Your task to perform on an android device: open app "Venmo" (install if not already installed) and go to login screen Image 0: 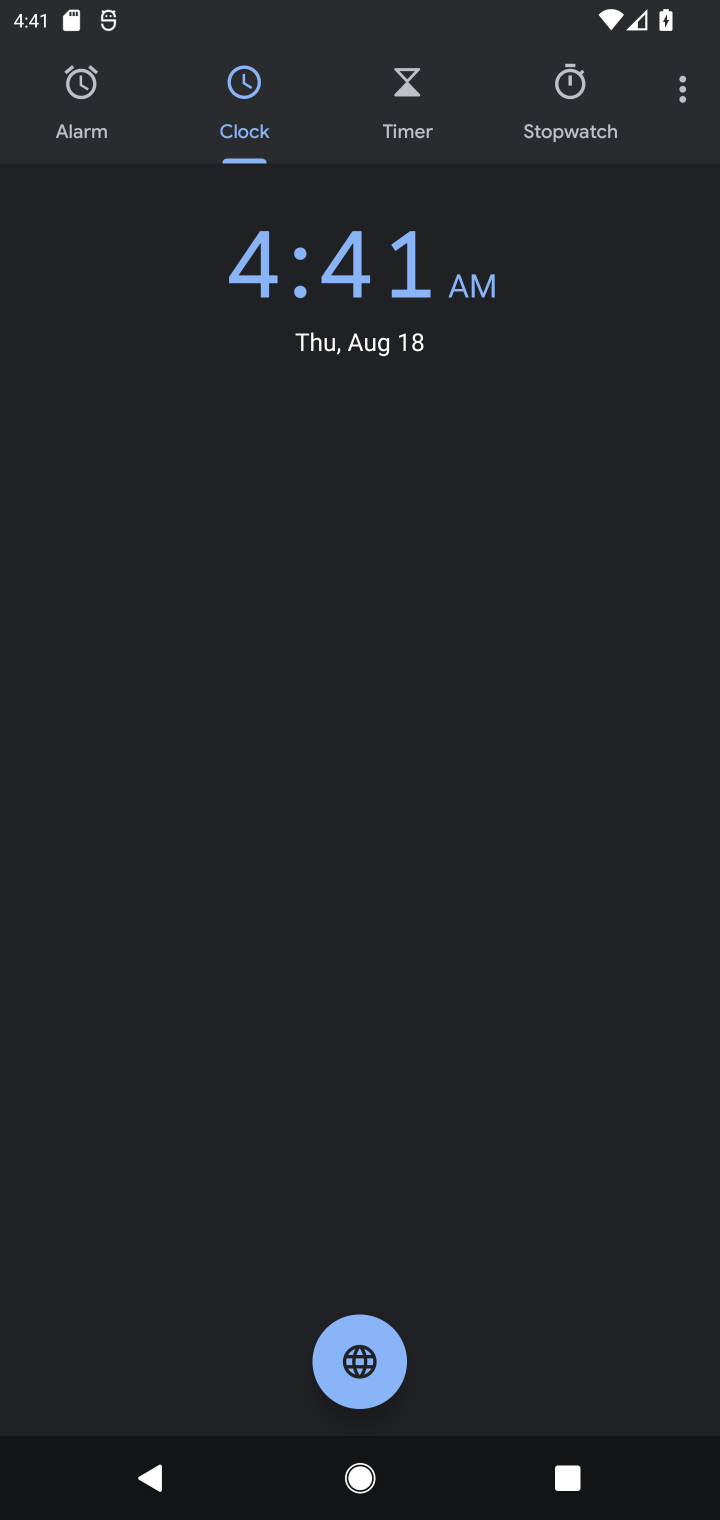
Step 0: press home button
Your task to perform on an android device: open app "Venmo" (install if not already installed) and go to login screen Image 1: 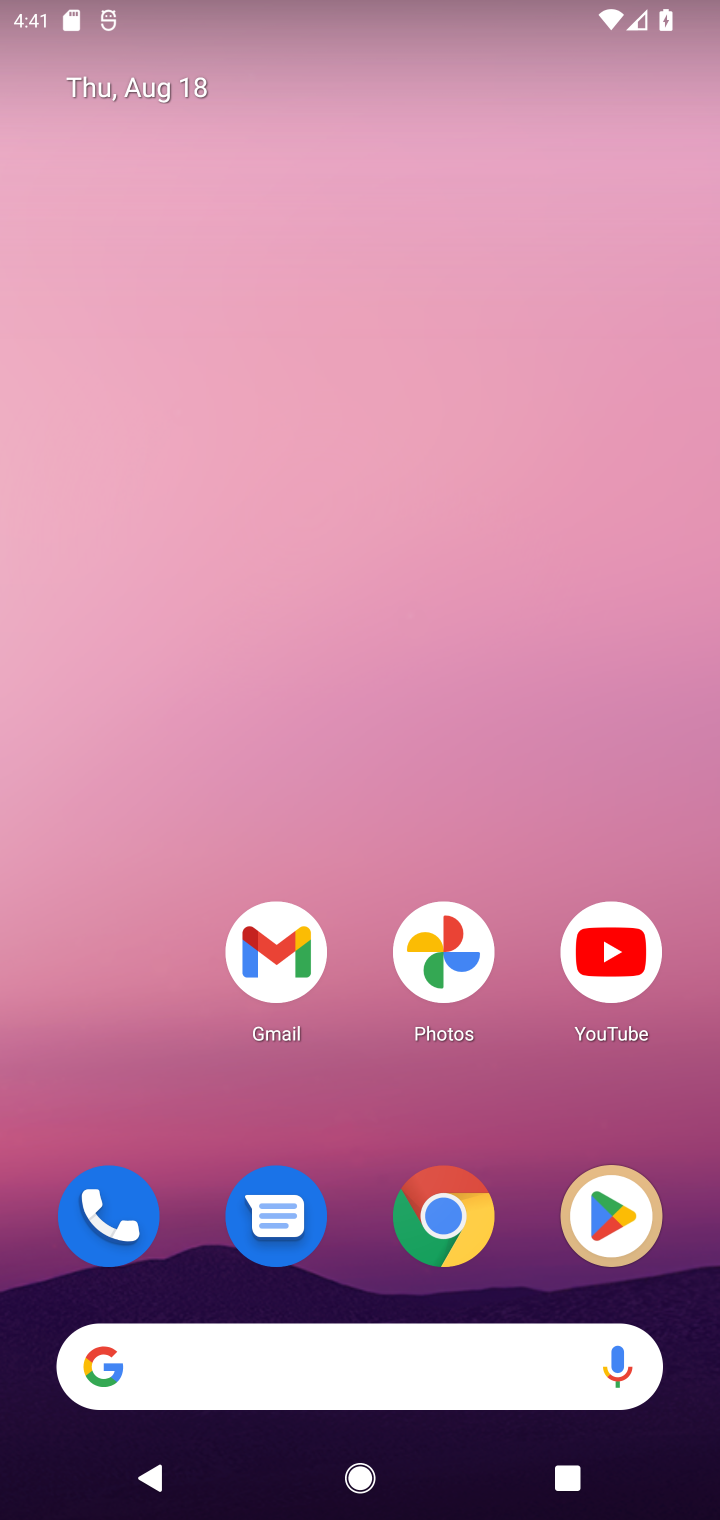
Step 1: click (584, 1194)
Your task to perform on an android device: open app "Venmo" (install if not already installed) and go to login screen Image 2: 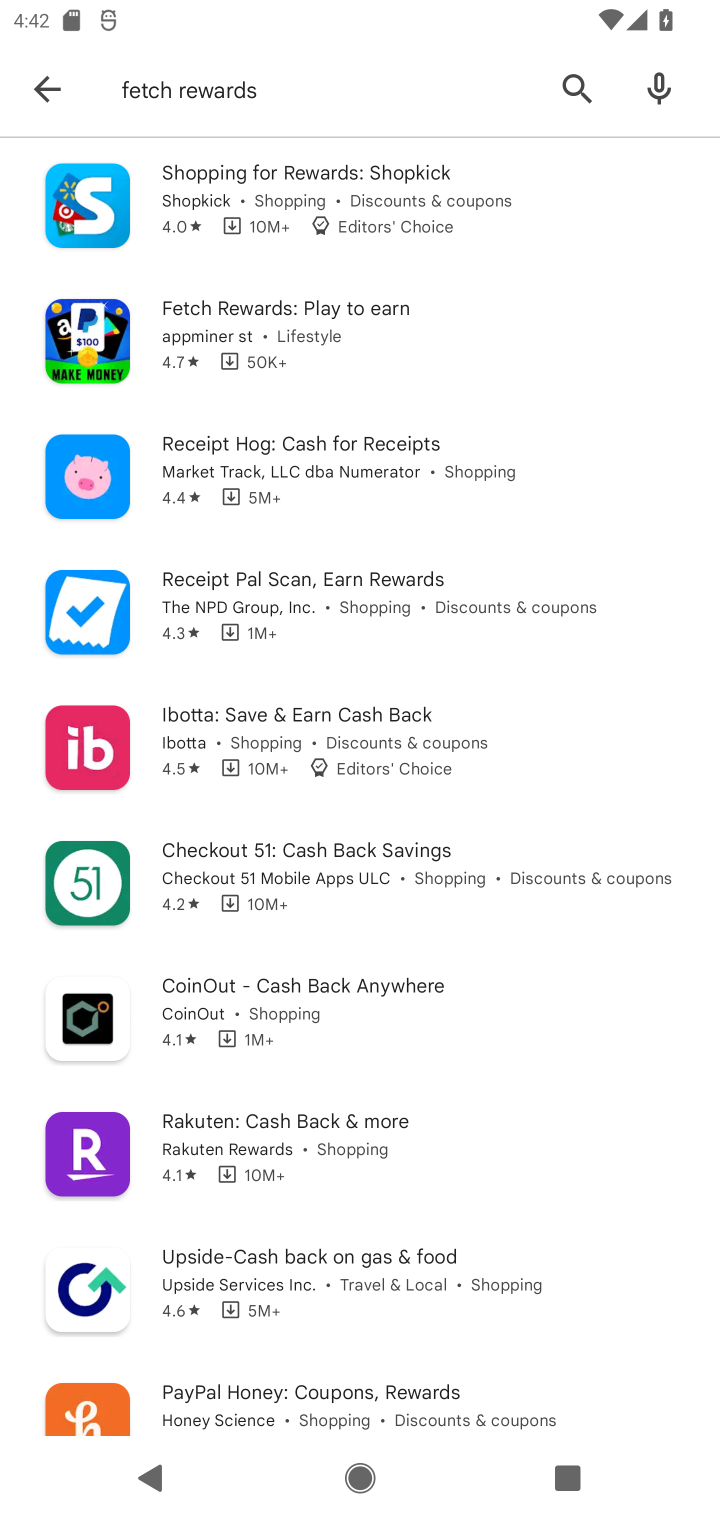
Step 2: click (559, 91)
Your task to perform on an android device: open app "Venmo" (install if not already installed) and go to login screen Image 3: 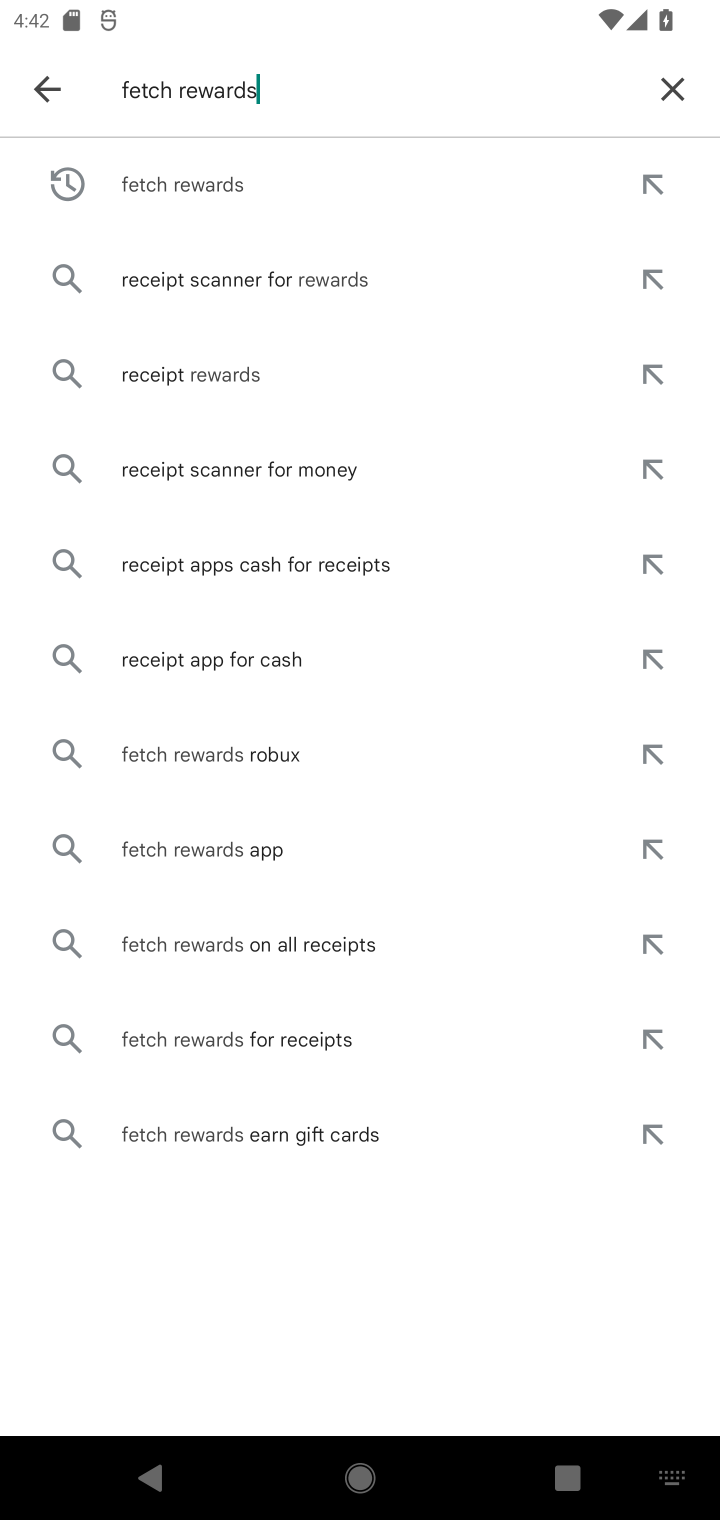
Step 3: click (674, 84)
Your task to perform on an android device: open app "Venmo" (install if not already installed) and go to login screen Image 4: 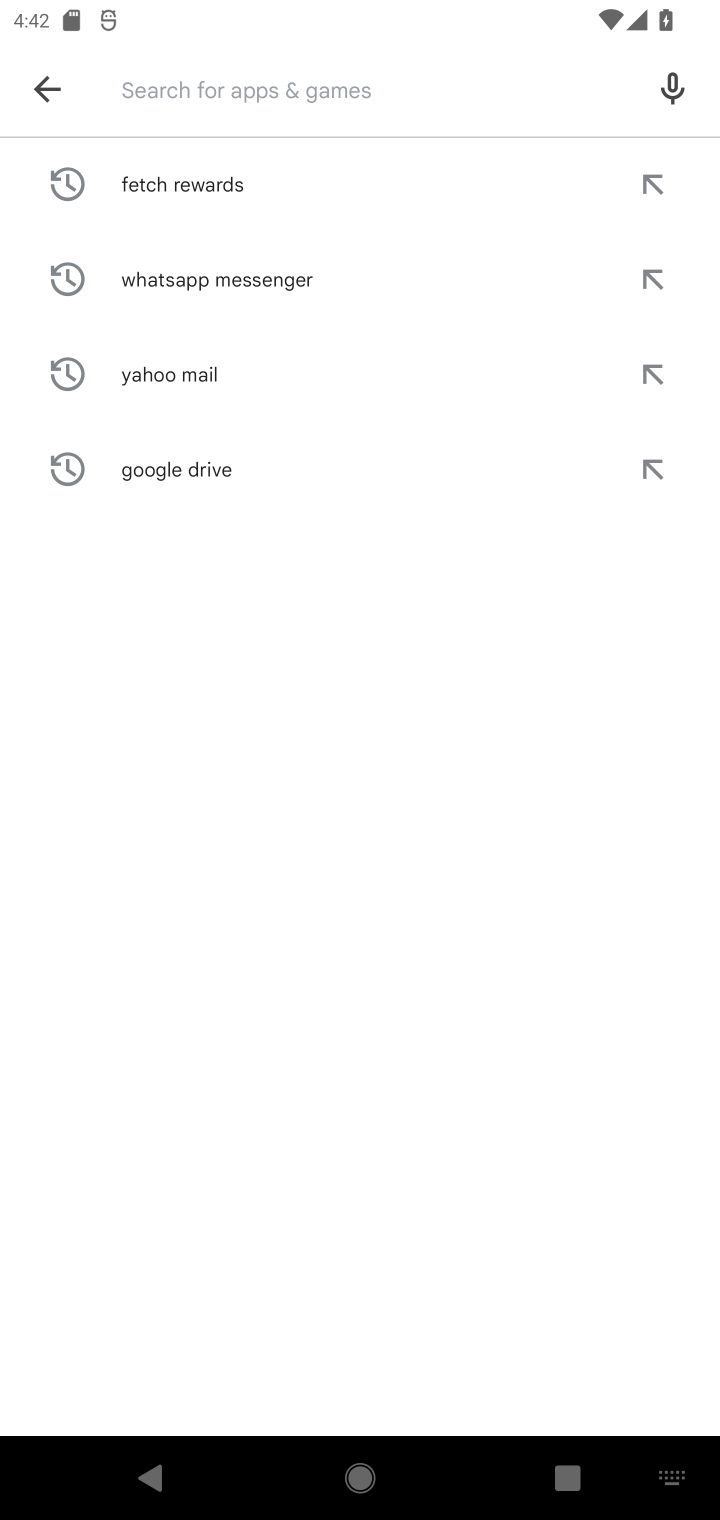
Step 4: type "Venmo"
Your task to perform on an android device: open app "Venmo" (install if not already installed) and go to login screen Image 5: 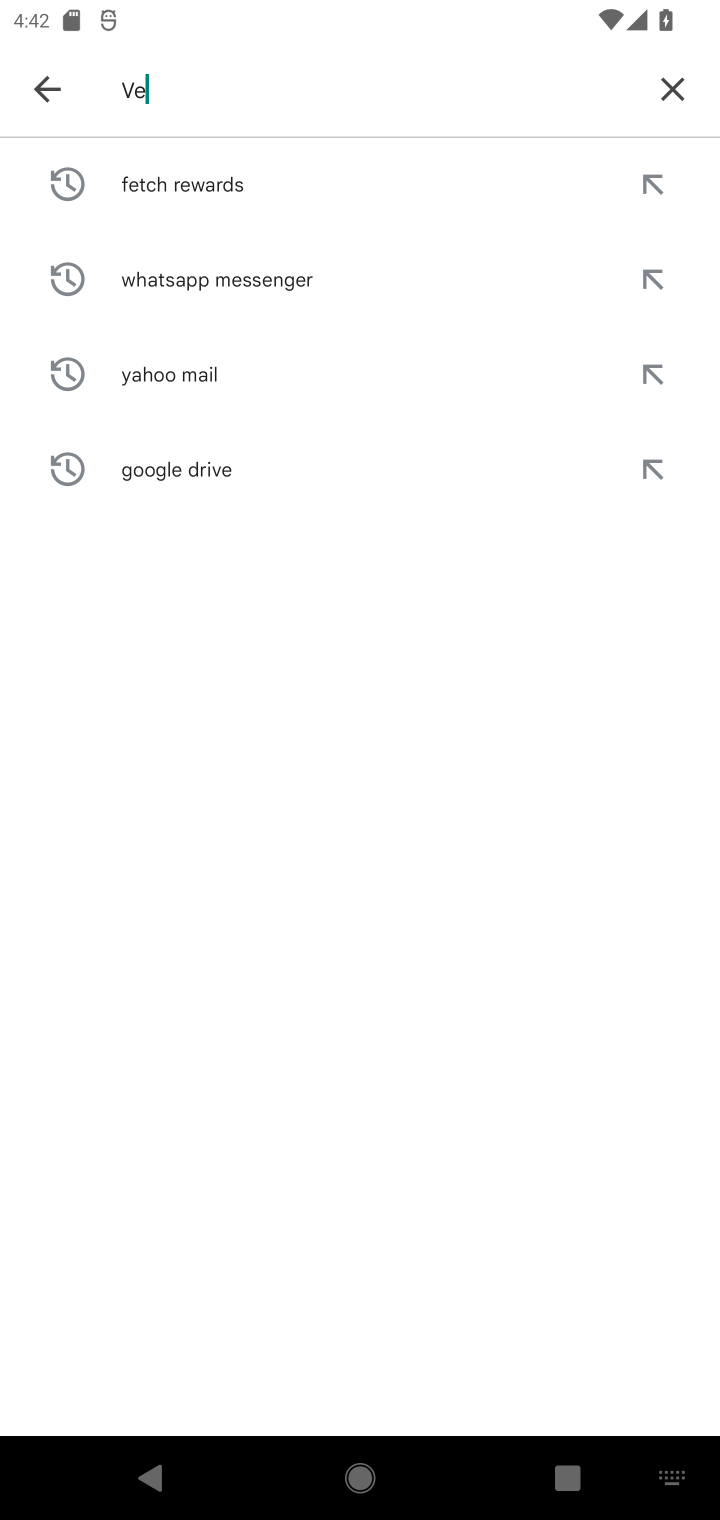
Step 5: type ""
Your task to perform on an android device: open app "Venmo" (install if not already installed) and go to login screen Image 6: 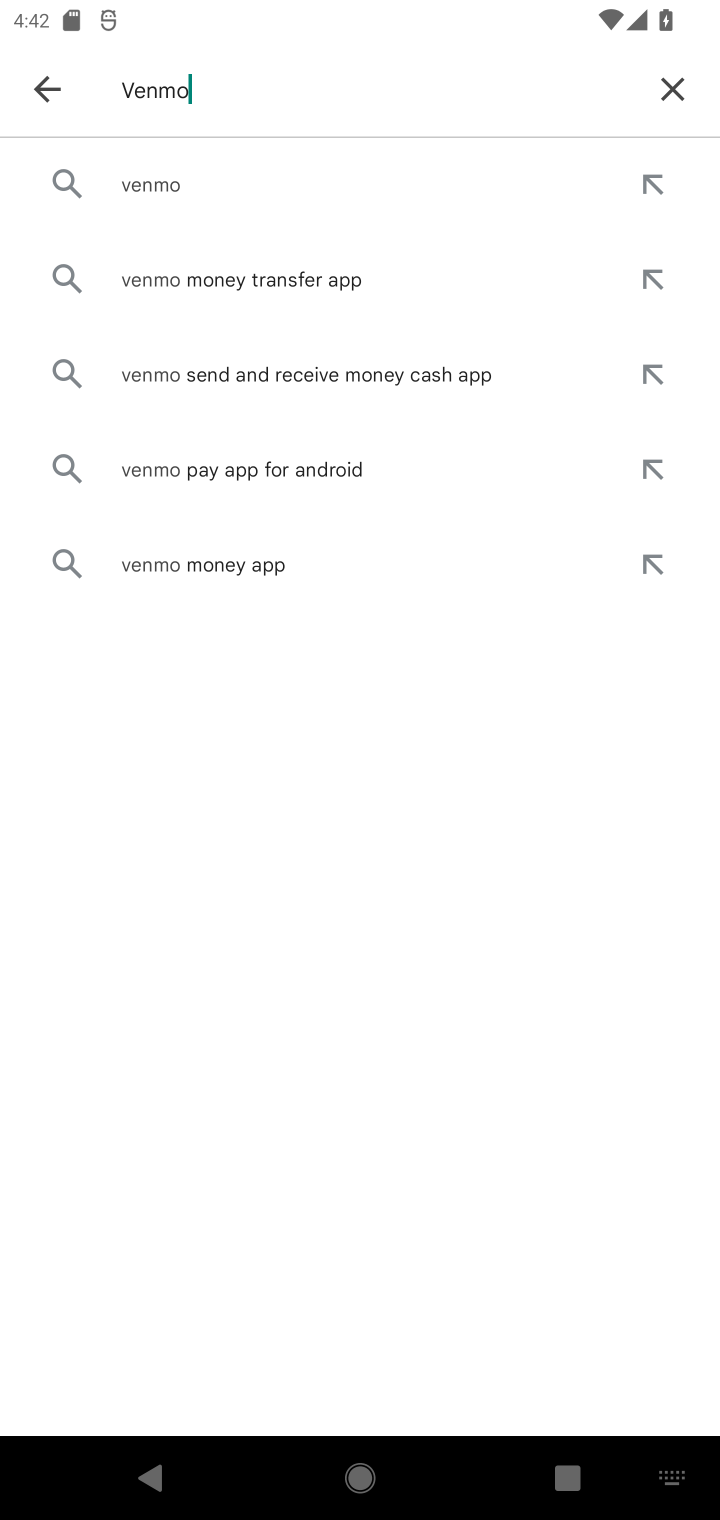
Step 6: click (218, 198)
Your task to perform on an android device: open app "Venmo" (install if not already installed) and go to login screen Image 7: 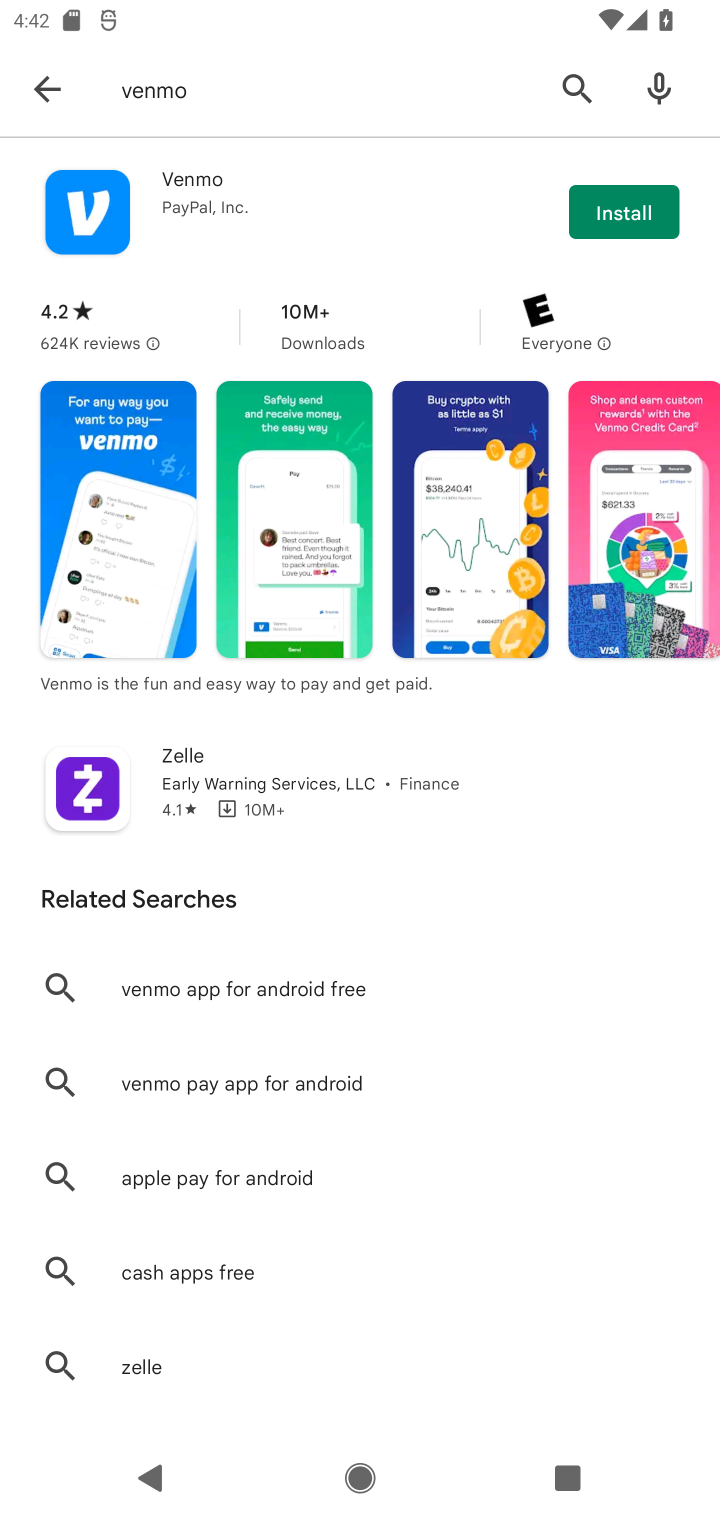
Step 7: click (640, 222)
Your task to perform on an android device: open app "Venmo" (install if not already installed) and go to login screen Image 8: 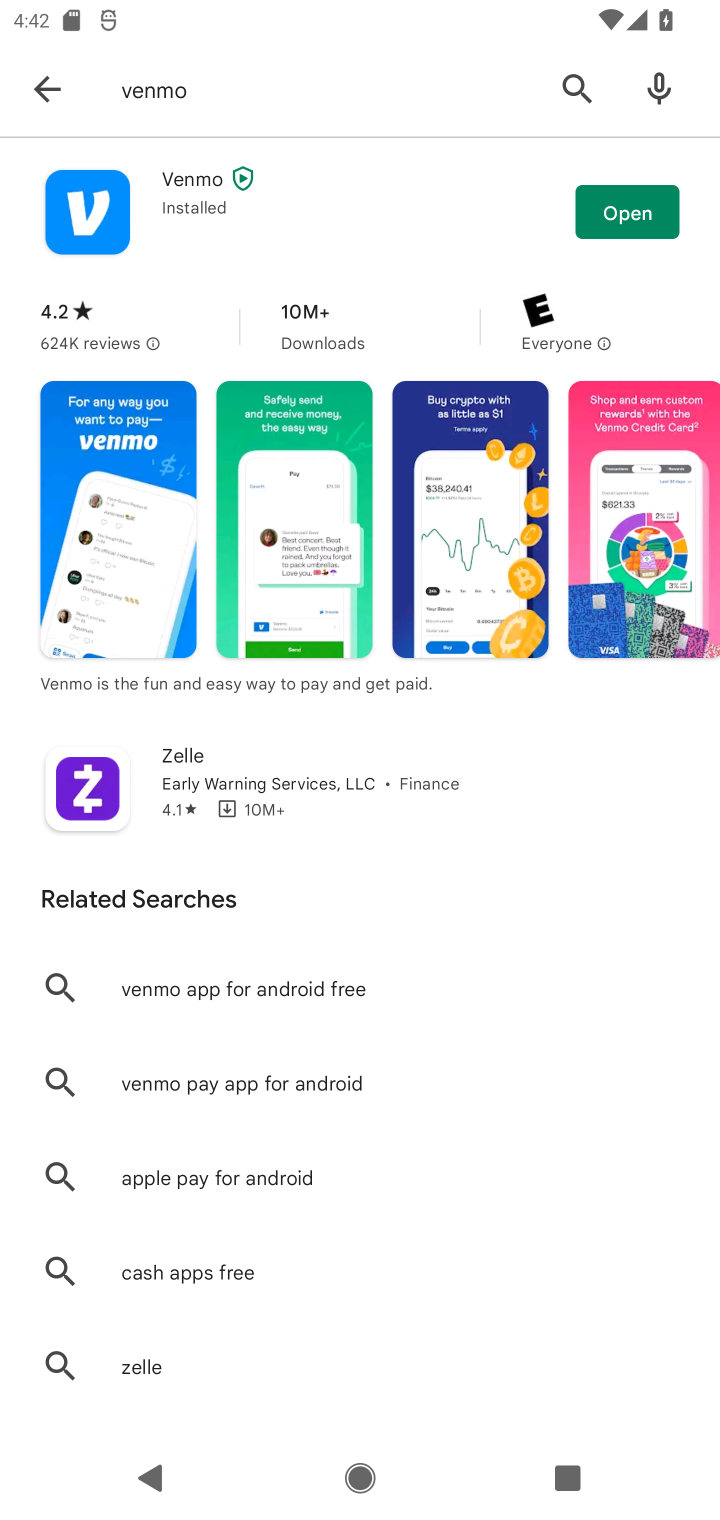
Step 8: click (640, 234)
Your task to perform on an android device: open app "Venmo" (install if not already installed) and go to login screen Image 9: 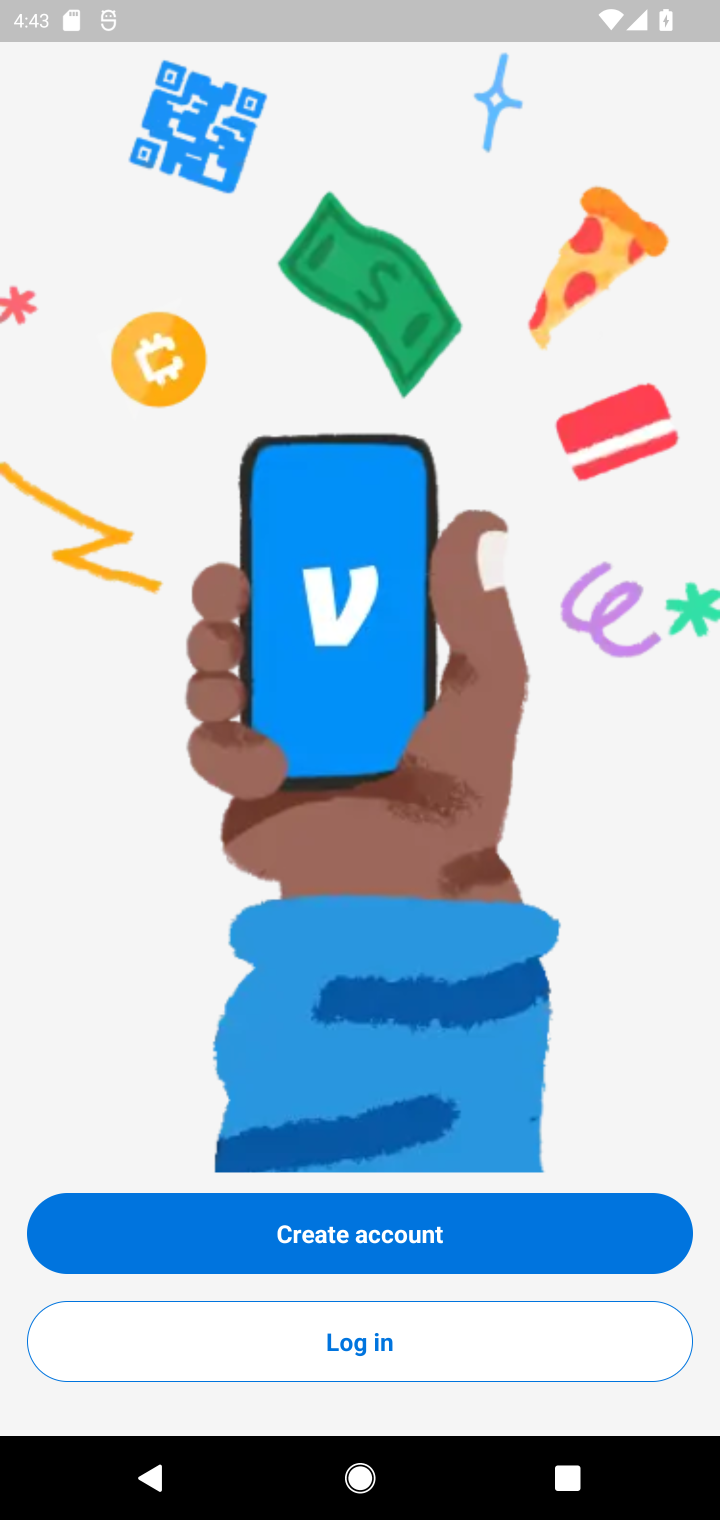
Step 9: task complete